Your task to perform on an android device: install app "Life360: Find Family & Friends" Image 0: 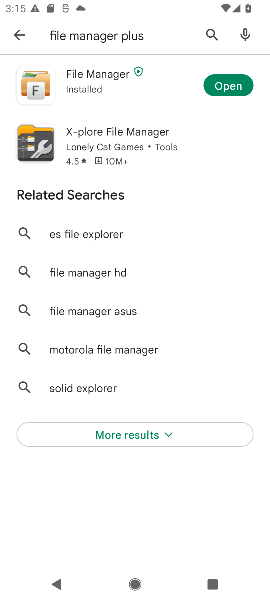
Step 0: press home button
Your task to perform on an android device: install app "Life360: Find Family & Friends" Image 1: 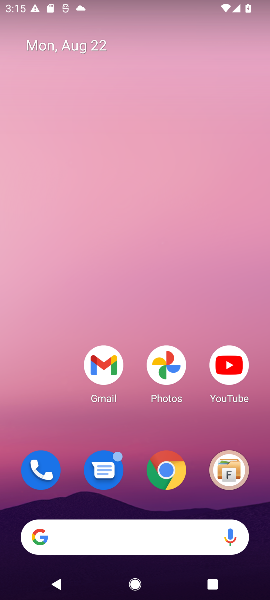
Step 1: drag from (86, 493) to (106, 103)
Your task to perform on an android device: install app "Life360: Find Family & Friends" Image 2: 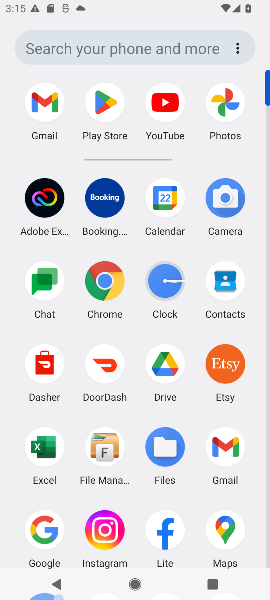
Step 2: click (104, 100)
Your task to perform on an android device: install app "Life360: Find Family & Friends" Image 3: 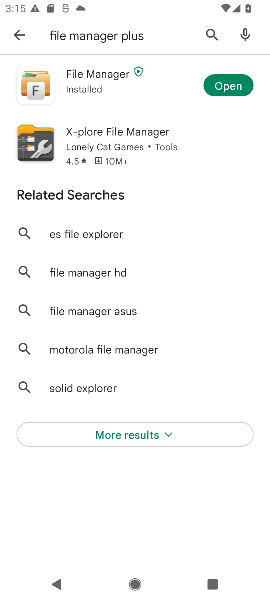
Step 3: click (14, 27)
Your task to perform on an android device: install app "Life360: Find Family & Friends" Image 4: 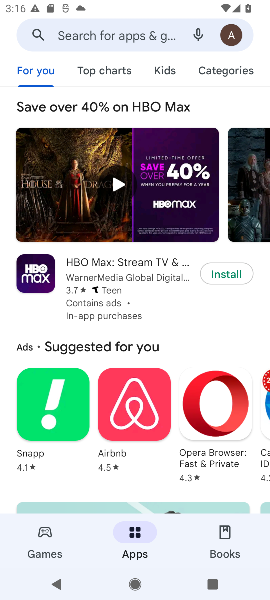
Step 4: click (115, 29)
Your task to perform on an android device: install app "Life360: Find Family & Friends" Image 5: 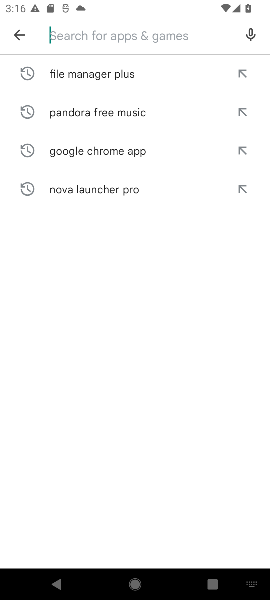
Step 5: type "Life360: Find Family & Friends "
Your task to perform on an android device: install app "Life360: Find Family & Friends" Image 6: 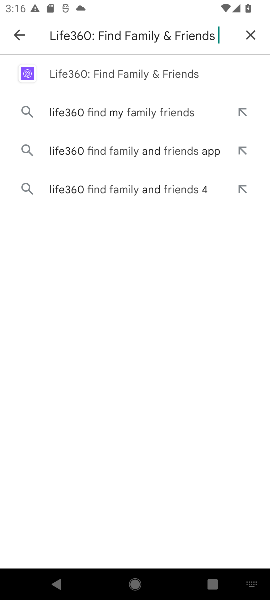
Step 6: click (132, 60)
Your task to perform on an android device: install app "Life360: Find Family & Friends" Image 7: 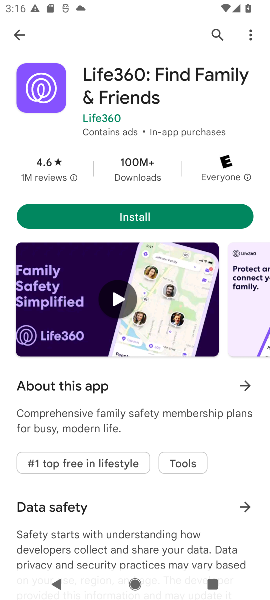
Step 7: click (149, 203)
Your task to perform on an android device: install app "Life360: Find Family & Friends" Image 8: 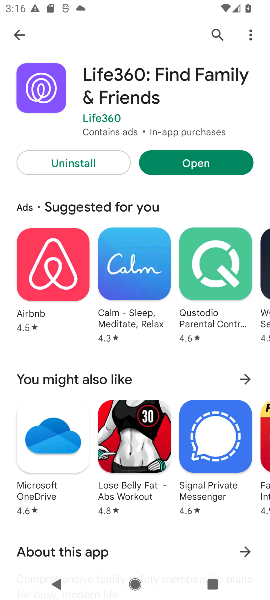
Step 8: click (188, 155)
Your task to perform on an android device: install app "Life360: Find Family & Friends" Image 9: 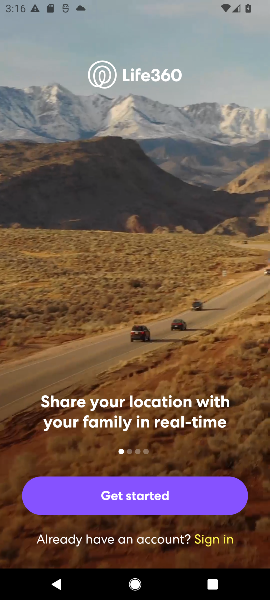
Step 9: task complete